Your task to perform on an android device: Search for Italian restaurants on Maps Image 0: 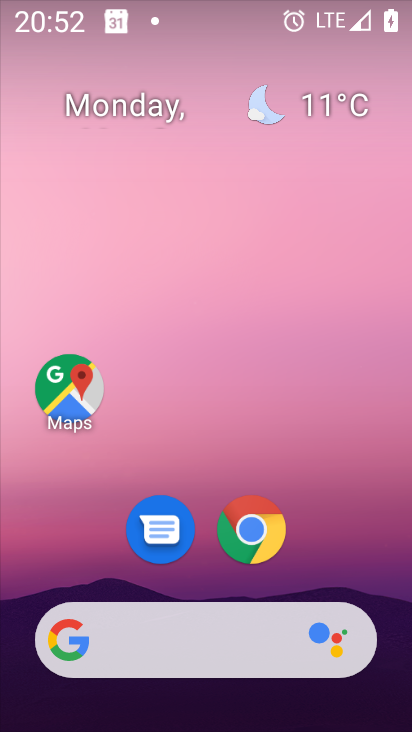
Step 0: drag from (251, 597) to (198, 77)
Your task to perform on an android device: Search for Italian restaurants on Maps Image 1: 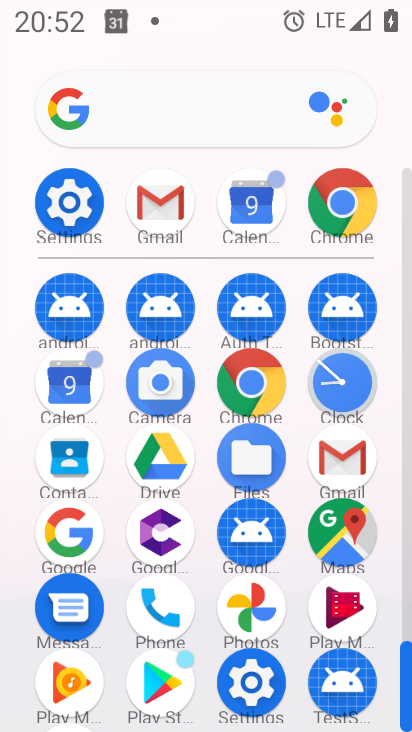
Step 1: click (345, 556)
Your task to perform on an android device: Search for Italian restaurants on Maps Image 2: 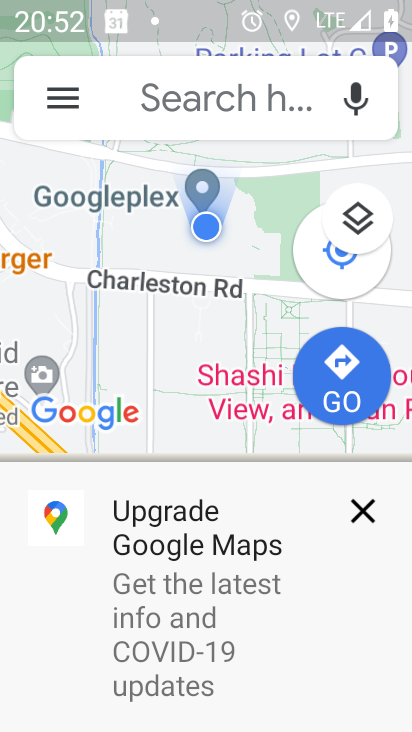
Step 2: click (243, 113)
Your task to perform on an android device: Search for Italian restaurants on Maps Image 3: 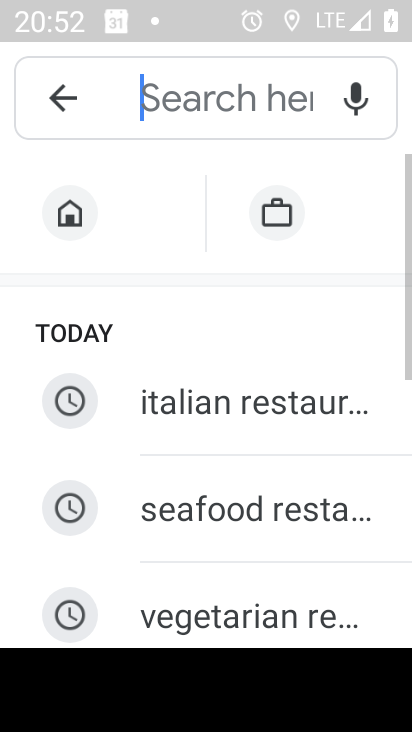
Step 3: click (320, 404)
Your task to perform on an android device: Search for Italian restaurants on Maps Image 4: 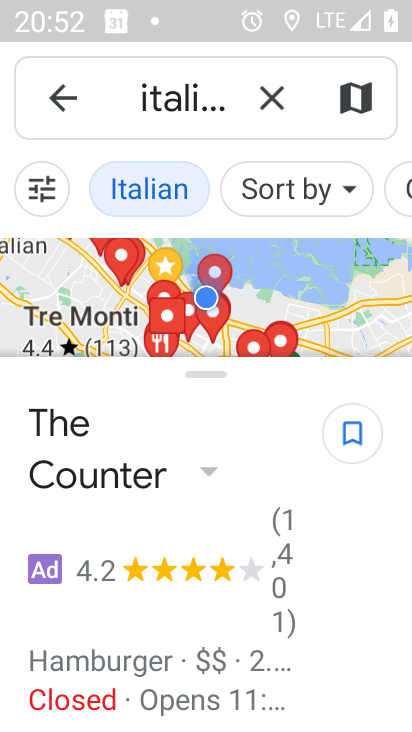
Step 4: task complete